Your task to perform on an android device: Open Maps and search for coffee Image 0: 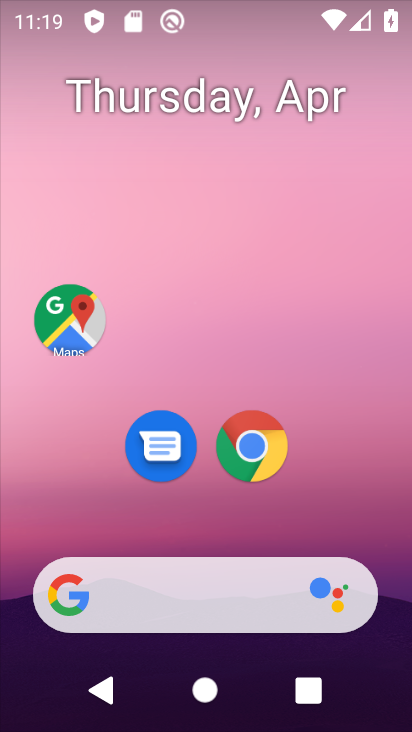
Step 0: drag from (390, 551) to (350, 232)
Your task to perform on an android device: Open Maps and search for coffee Image 1: 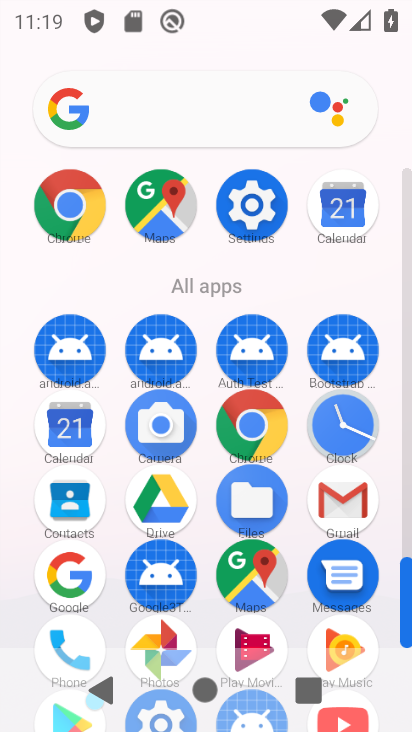
Step 1: click (158, 208)
Your task to perform on an android device: Open Maps and search for coffee Image 2: 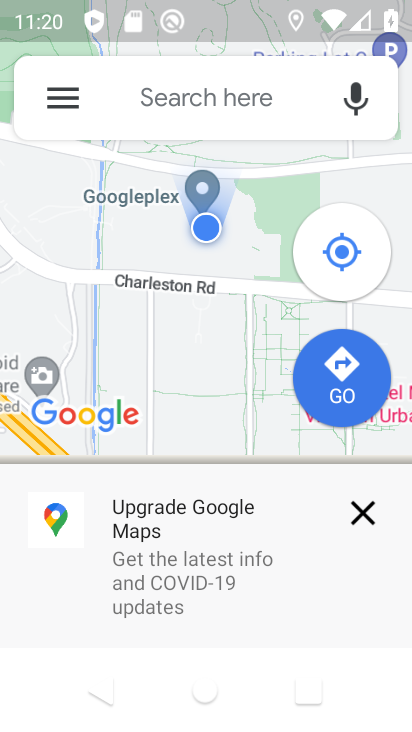
Step 2: click (142, 91)
Your task to perform on an android device: Open Maps and search for coffee Image 3: 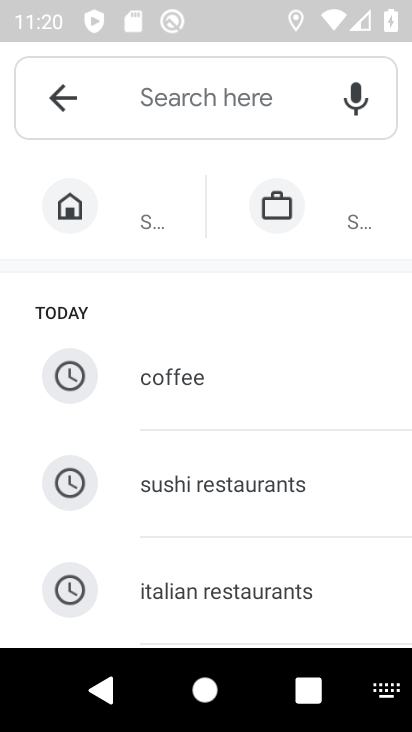
Step 3: click (226, 386)
Your task to perform on an android device: Open Maps and search for coffee Image 4: 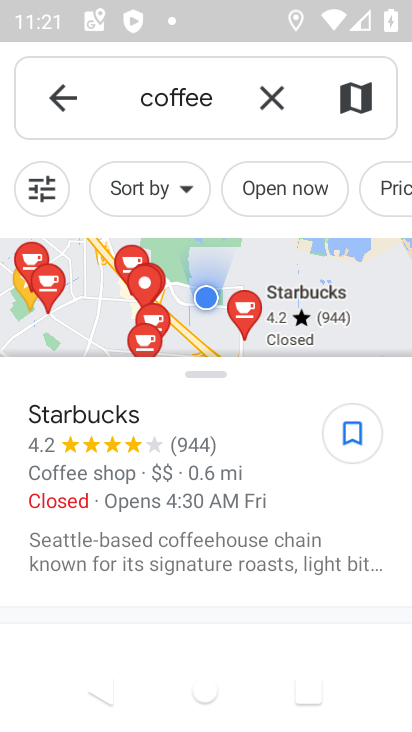
Step 4: task complete